Your task to perform on an android device: Open Google Chrome and open the bookmarks view Image 0: 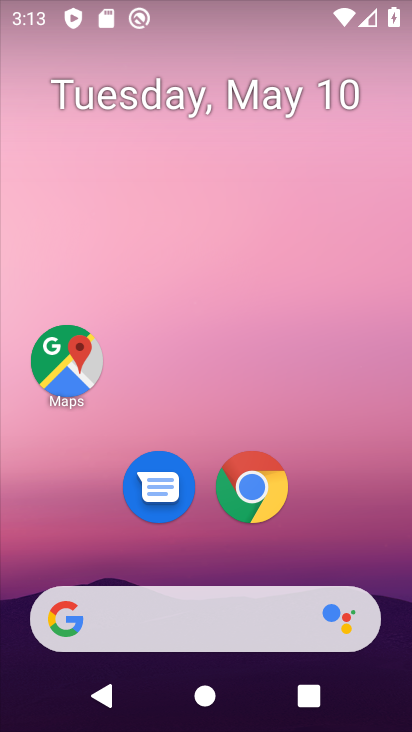
Step 0: drag from (218, 564) to (220, 114)
Your task to perform on an android device: Open Google Chrome and open the bookmarks view Image 1: 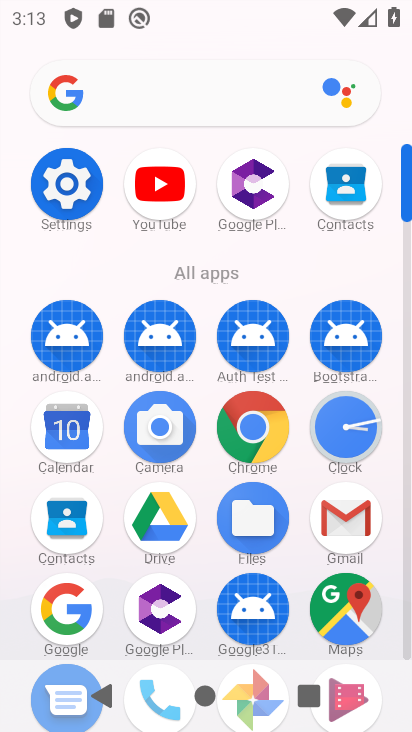
Step 1: click (248, 422)
Your task to perform on an android device: Open Google Chrome and open the bookmarks view Image 2: 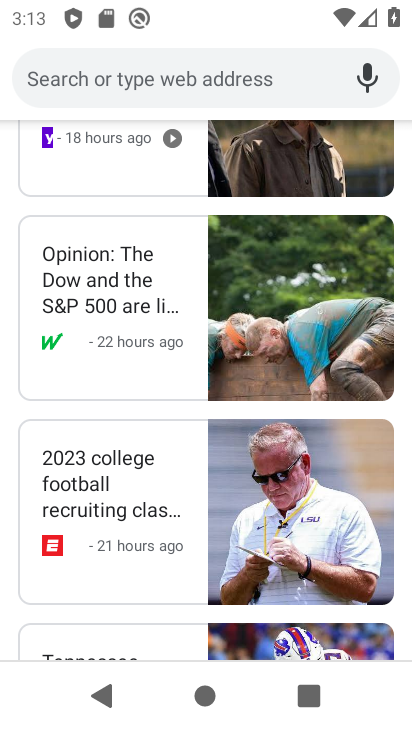
Step 2: drag from (141, 201) to (158, 622)
Your task to perform on an android device: Open Google Chrome and open the bookmarks view Image 3: 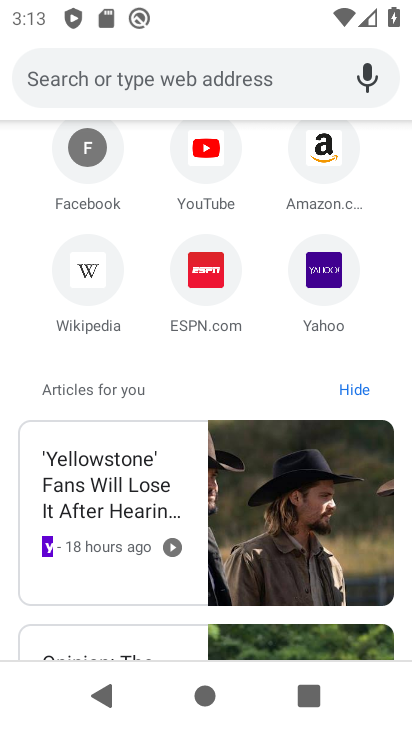
Step 3: drag from (126, 152) to (138, 625)
Your task to perform on an android device: Open Google Chrome and open the bookmarks view Image 4: 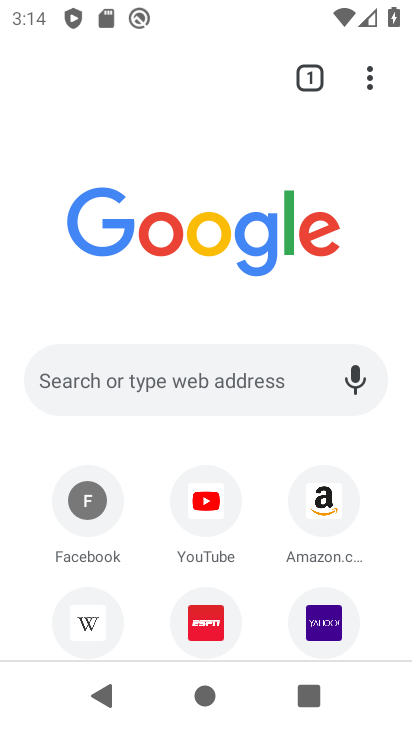
Step 4: click (373, 76)
Your task to perform on an android device: Open Google Chrome and open the bookmarks view Image 5: 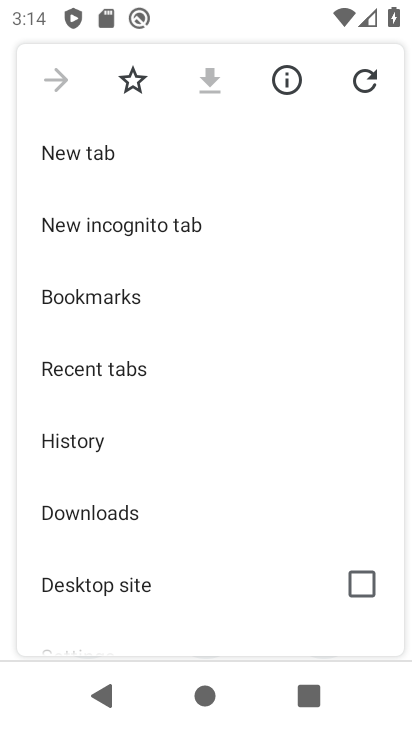
Step 5: click (148, 287)
Your task to perform on an android device: Open Google Chrome and open the bookmarks view Image 6: 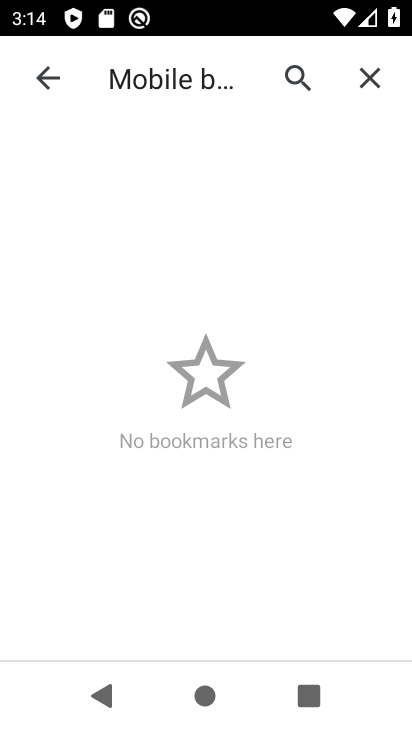
Step 6: task complete